Your task to perform on an android device: open a new tab in the chrome app Image 0: 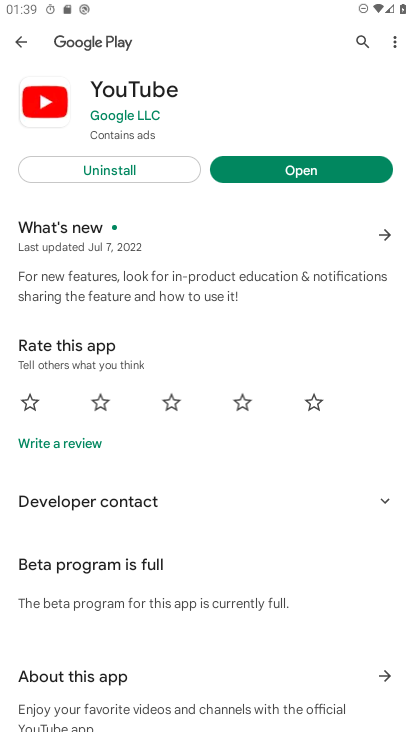
Step 0: press home button
Your task to perform on an android device: open a new tab in the chrome app Image 1: 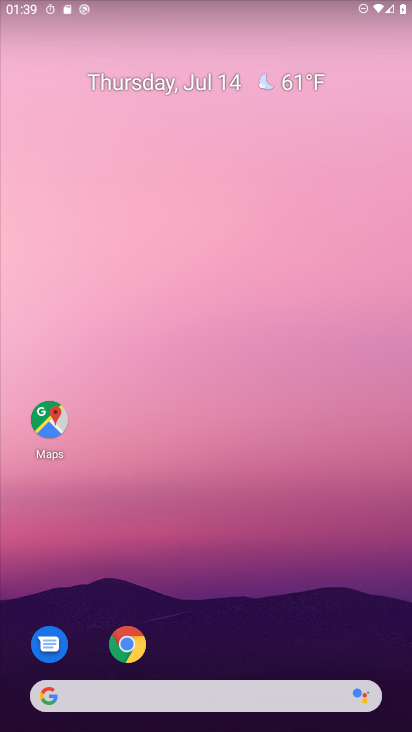
Step 1: drag from (250, 569) to (249, 124)
Your task to perform on an android device: open a new tab in the chrome app Image 2: 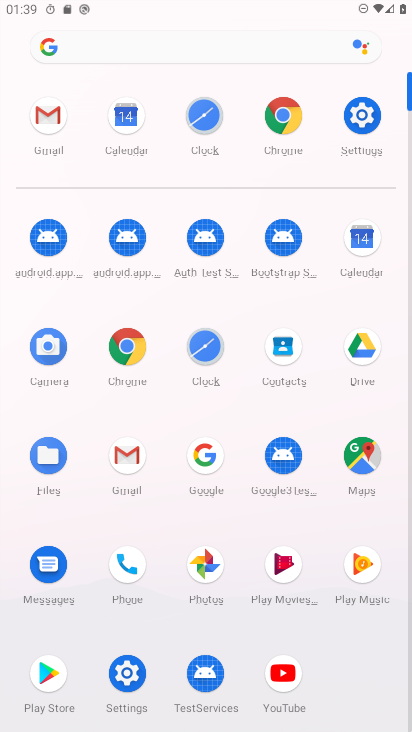
Step 2: click (280, 114)
Your task to perform on an android device: open a new tab in the chrome app Image 3: 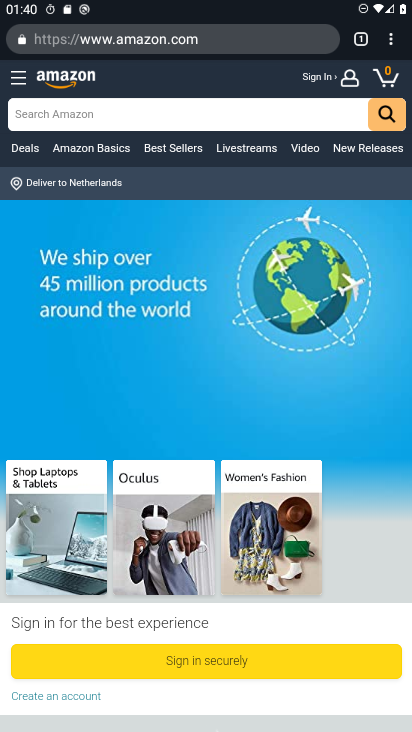
Step 3: task complete